Your task to perform on an android device: Open Google Image 0: 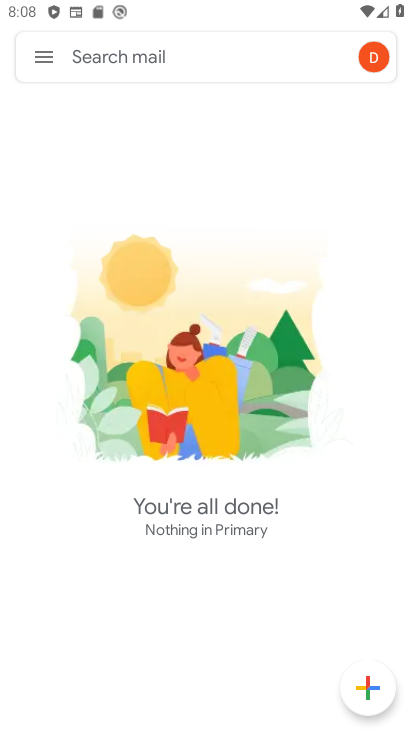
Step 0: press home button
Your task to perform on an android device: Open Google Image 1: 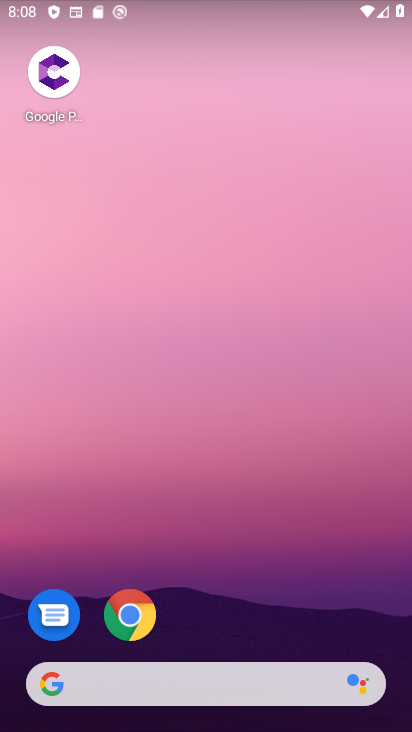
Step 1: drag from (121, 656) to (99, 403)
Your task to perform on an android device: Open Google Image 2: 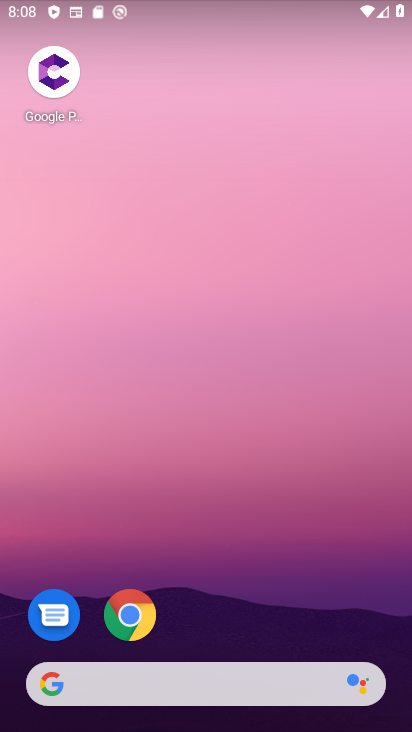
Step 2: drag from (222, 655) to (197, 379)
Your task to perform on an android device: Open Google Image 3: 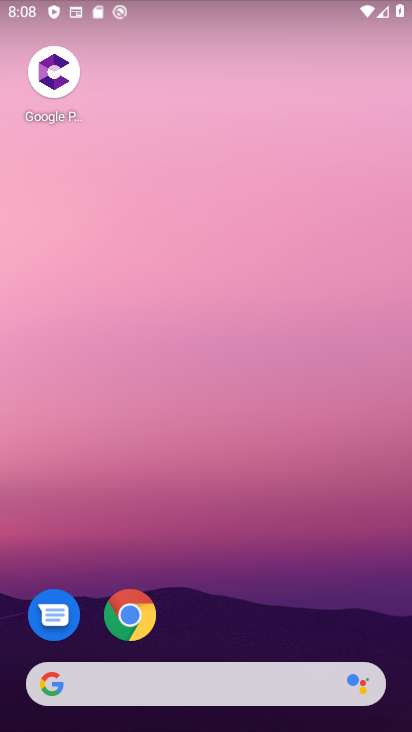
Step 3: drag from (198, 669) to (170, 250)
Your task to perform on an android device: Open Google Image 4: 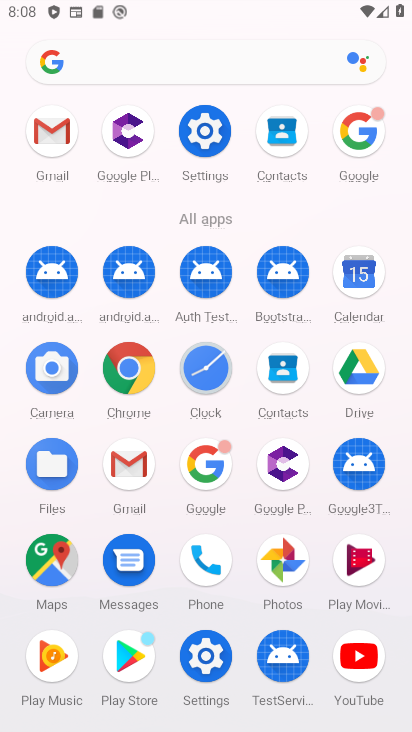
Step 4: click (199, 478)
Your task to perform on an android device: Open Google Image 5: 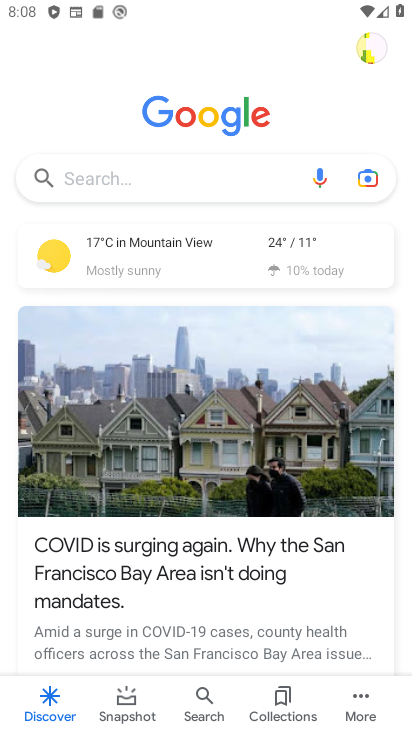
Step 5: task complete